Your task to perform on an android device: delete browsing data in the chrome app Image 0: 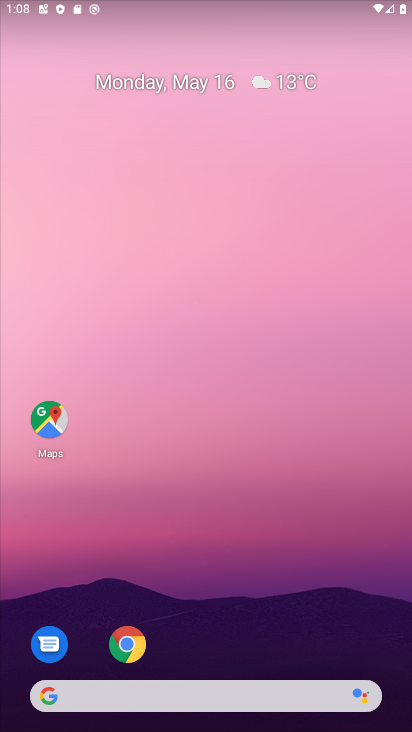
Step 0: press home button
Your task to perform on an android device: delete browsing data in the chrome app Image 1: 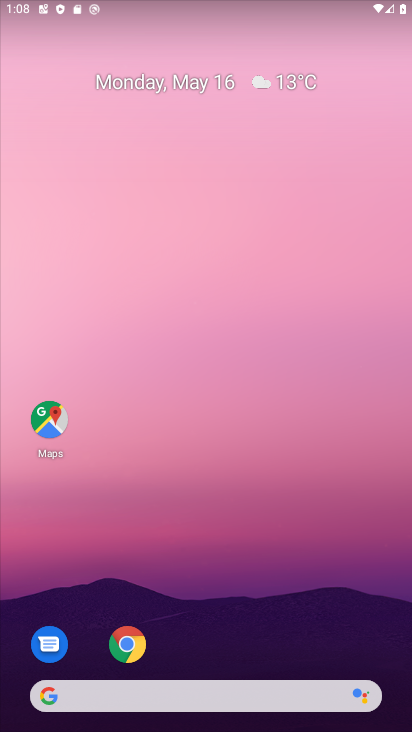
Step 1: drag from (202, 648) to (209, 234)
Your task to perform on an android device: delete browsing data in the chrome app Image 2: 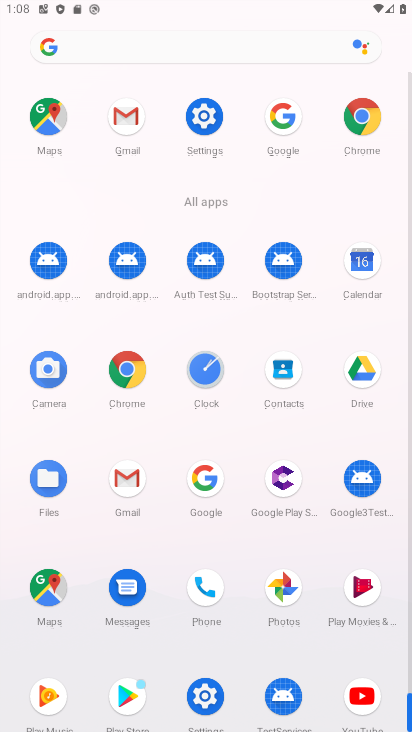
Step 2: click (362, 139)
Your task to perform on an android device: delete browsing data in the chrome app Image 3: 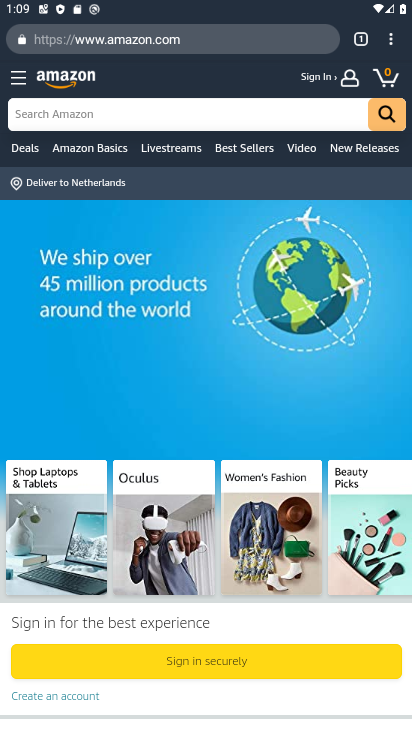
Step 3: click (393, 48)
Your task to perform on an android device: delete browsing data in the chrome app Image 4: 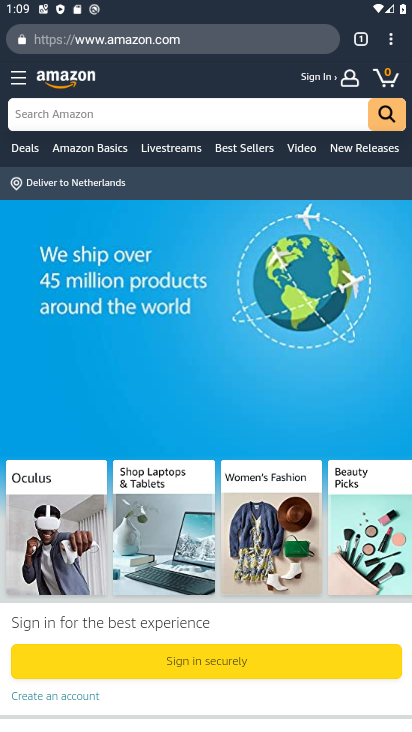
Step 4: click (394, 52)
Your task to perform on an android device: delete browsing data in the chrome app Image 5: 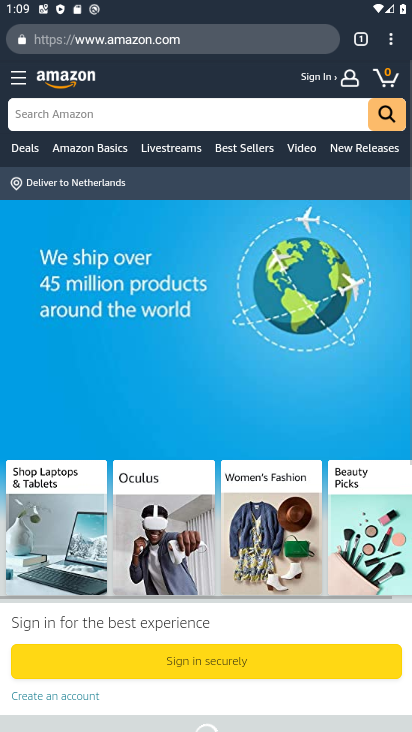
Step 5: click (394, 52)
Your task to perform on an android device: delete browsing data in the chrome app Image 6: 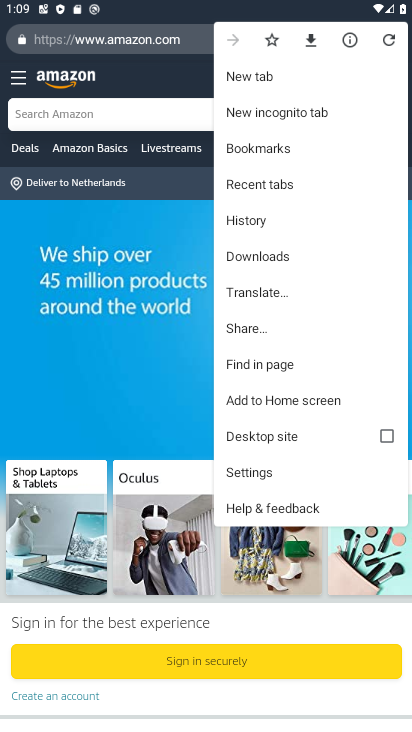
Step 6: click (279, 232)
Your task to perform on an android device: delete browsing data in the chrome app Image 7: 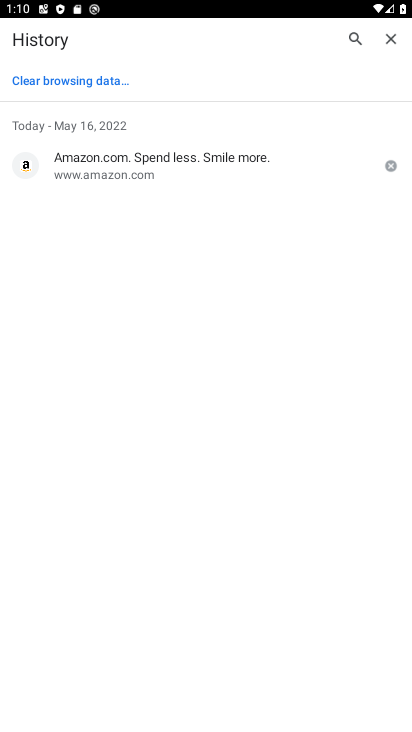
Step 7: click (66, 83)
Your task to perform on an android device: delete browsing data in the chrome app Image 8: 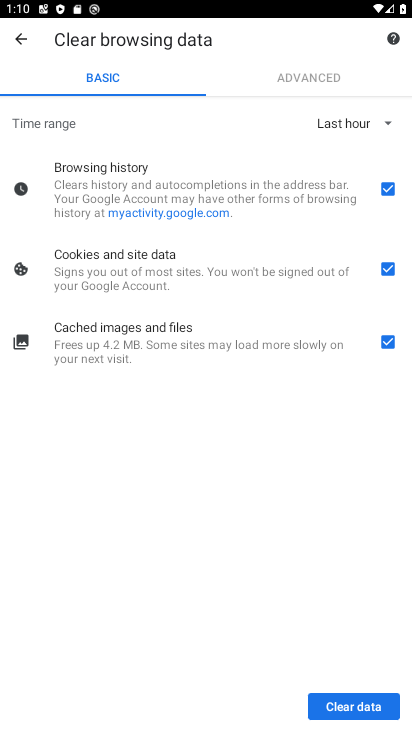
Step 8: click (345, 709)
Your task to perform on an android device: delete browsing data in the chrome app Image 9: 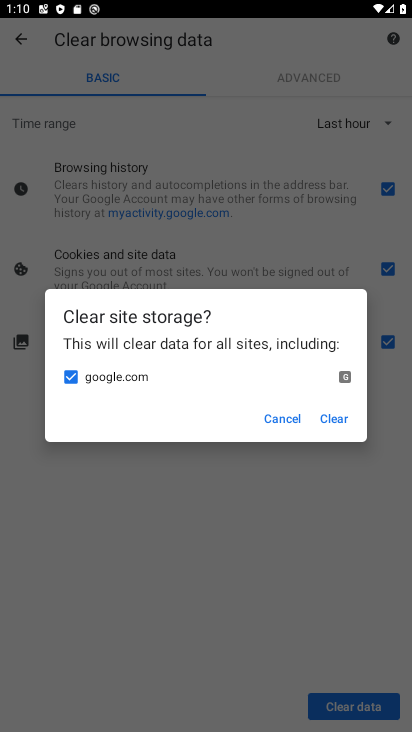
Step 9: click (325, 426)
Your task to perform on an android device: delete browsing data in the chrome app Image 10: 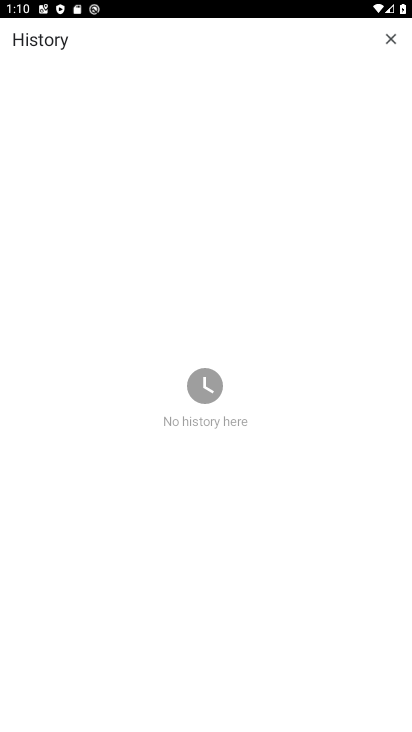
Step 10: task complete